Your task to perform on an android device: change the clock display to digital Image 0: 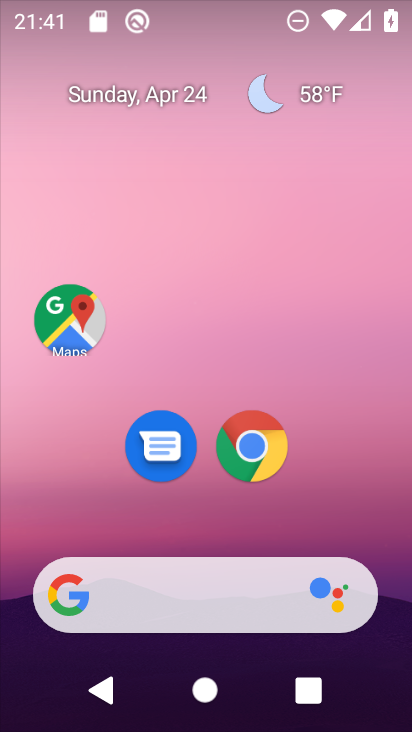
Step 0: drag from (203, 603) to (335, 112)
Your task to perform on an android device: change the clock display to digital Image 1: 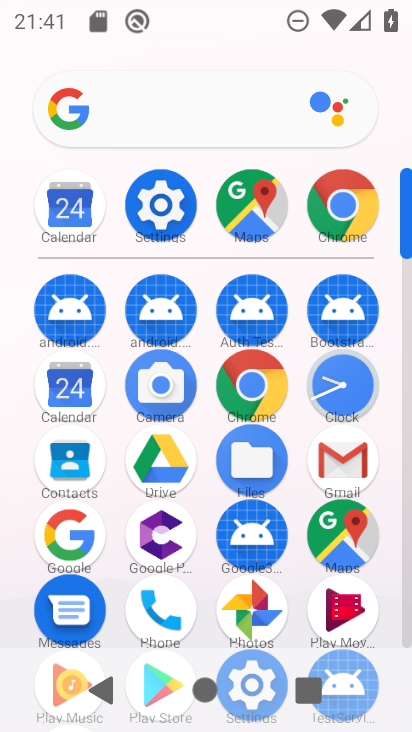
Step 1: click (345, 401)
Your task to perform on an android device: change the clock display to digital Image 2: 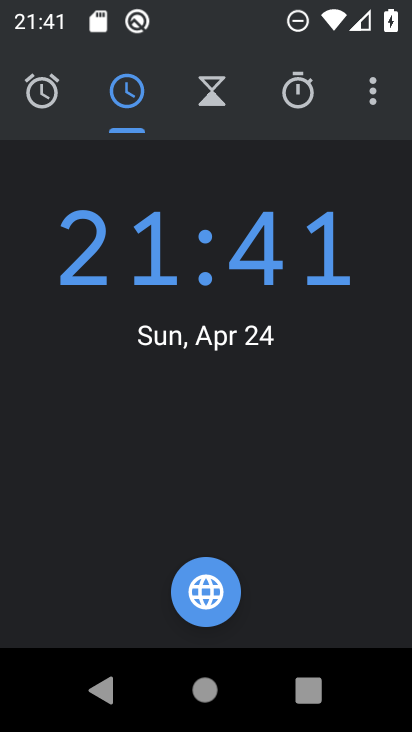
Step 2: click (372, 95)
Your task to perform on an android device: change the clock display to digital Image 3: 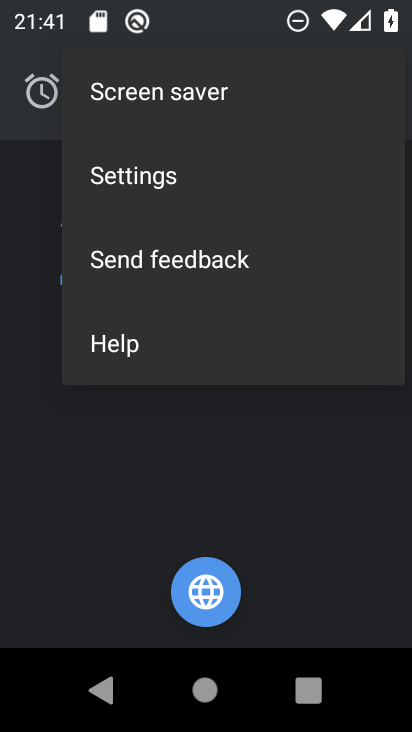
Step 3: click (115, 176)
Your task to perform on an android device: change the clock display to digital Image 4: 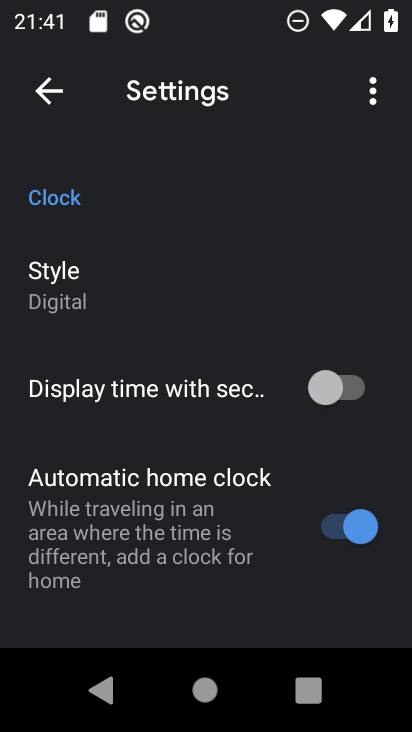
Step 4: task complete